Your task to perform on an android device: Open accessibility settings Image 0: 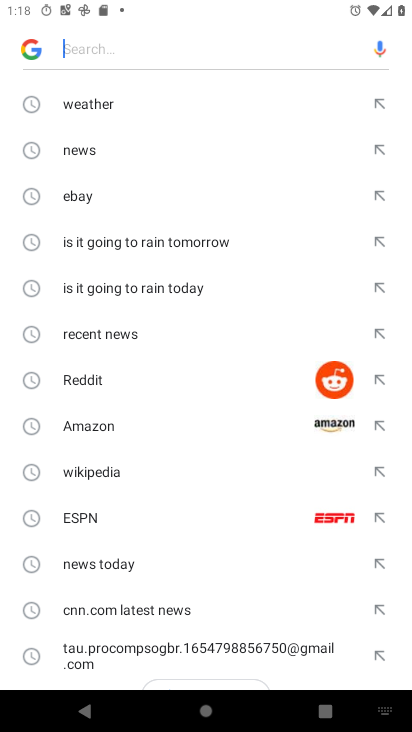
Step 0: press home button
Your task to perform on an android device: Open accessibility settings Image 1: 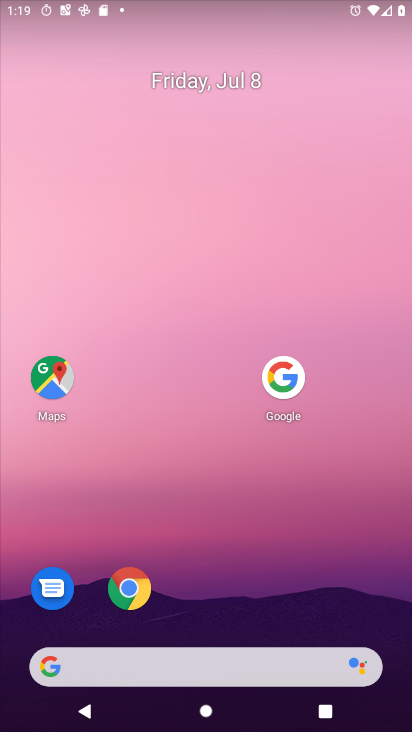
Step 1: drag from (168, 677) to (287, 82)
Your task to perform on an android device: Open accessibility settings Image 2: 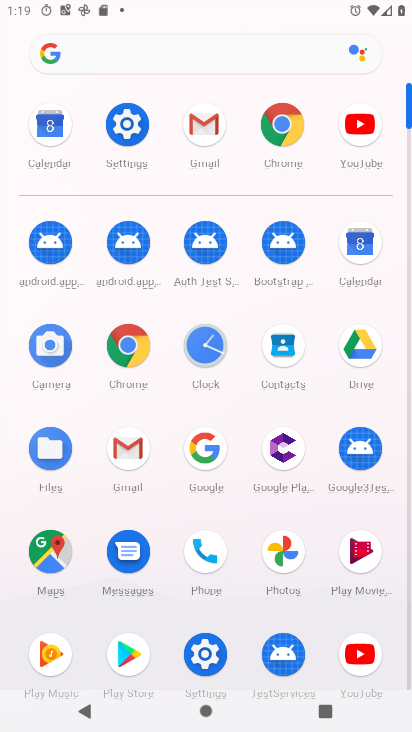
Step 2: click (123, 124)
Your task to perform on an android device: Open accessibility settings Image 3: 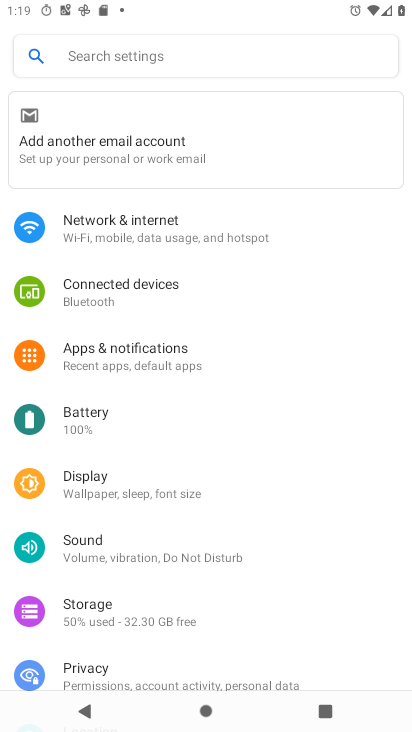
Step 3: drag from (243, 640) to (277, 214)
Your task to perform on an android device: Open accessibility settings Image 4: 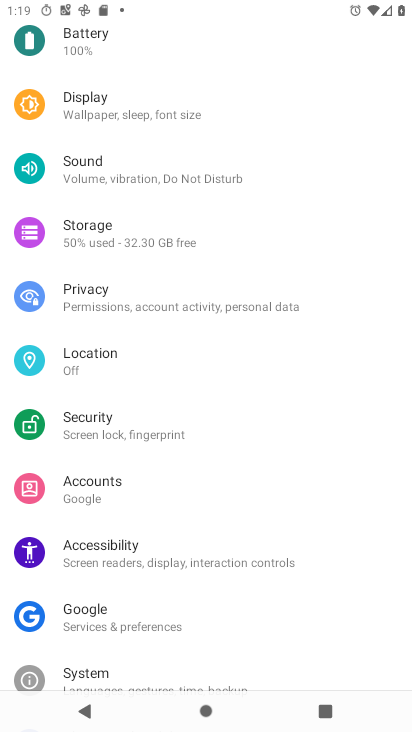
Step 4: click (132, 551)
Your task to perform on an android device: Open accessibility settings Image 5: 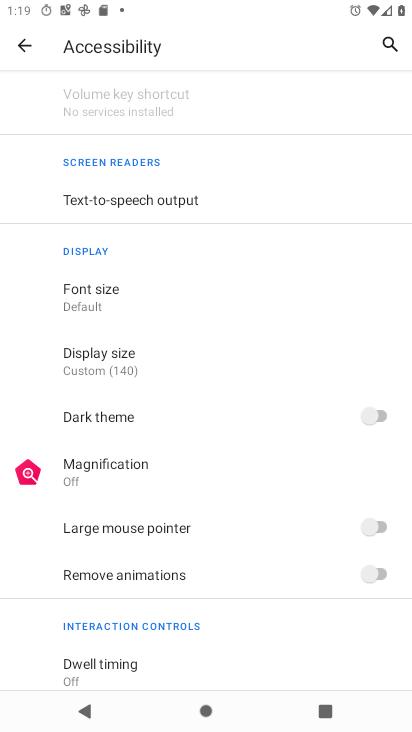
Step 5: task complete